Your task to perform on an android device: Open location settings Image 0: 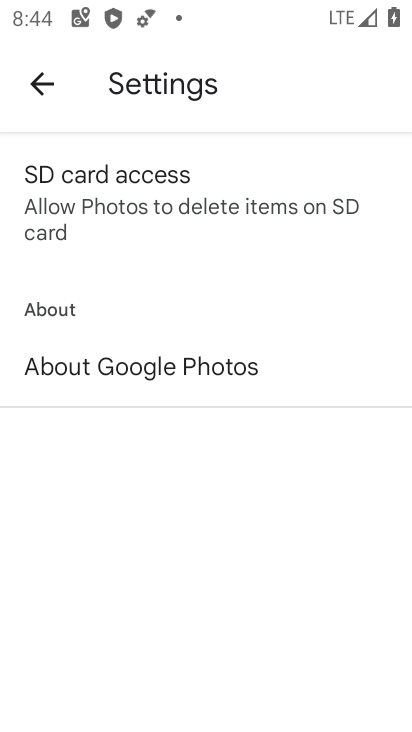
Step 0: press home button
Your task to perform on an android device: Open location settings Image 1: 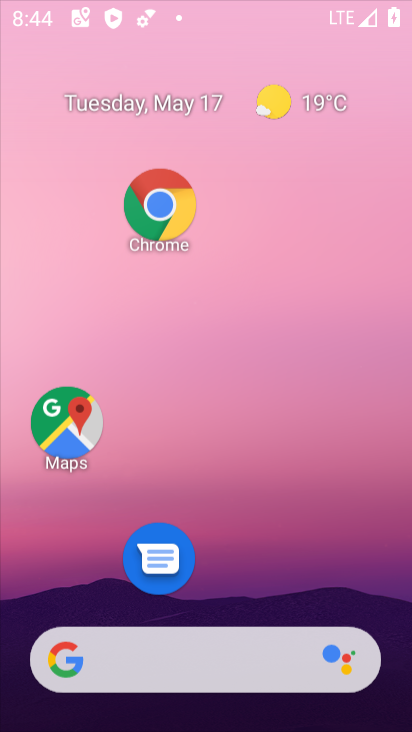
Step 1: drag from (169, 650) to (64, 2)
Your task to perform on an android device: Open location settings Image 2: 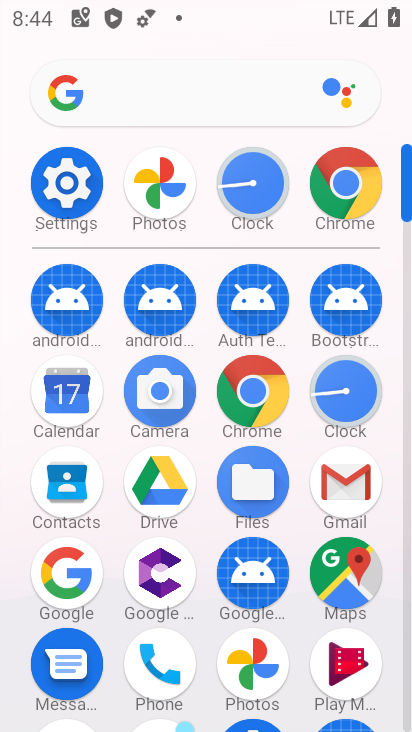
Step 2: click (55, 199)
Your task to perform on an android device: Open location settings Image 3: 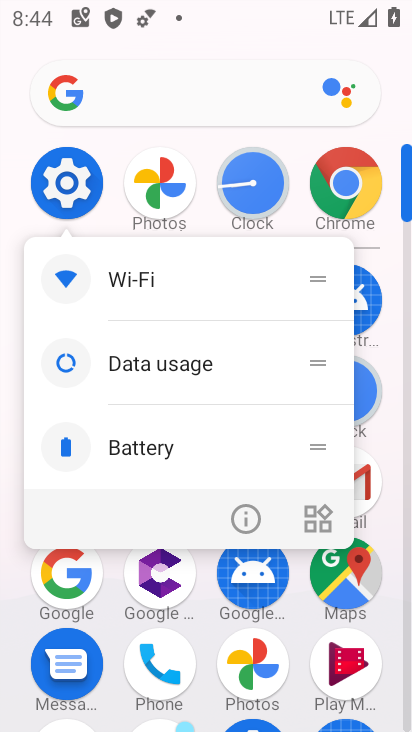
Step 3: click (255, 518)
Your task to perform on an android device: Open location settings Image 4: 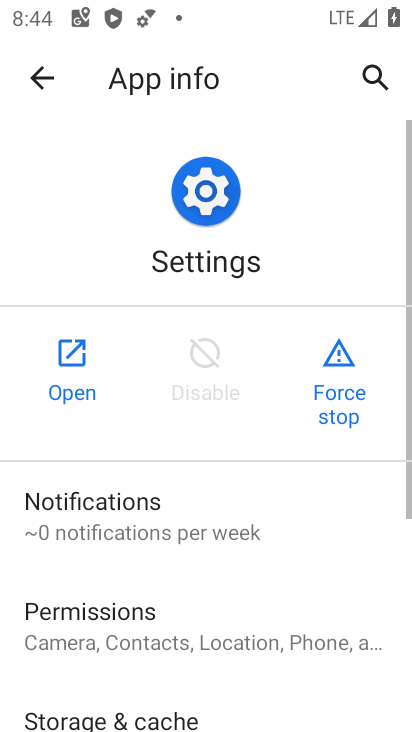
Step 4: click (71, 380)
Your task to perform on an android device: Open location settings Image 5: 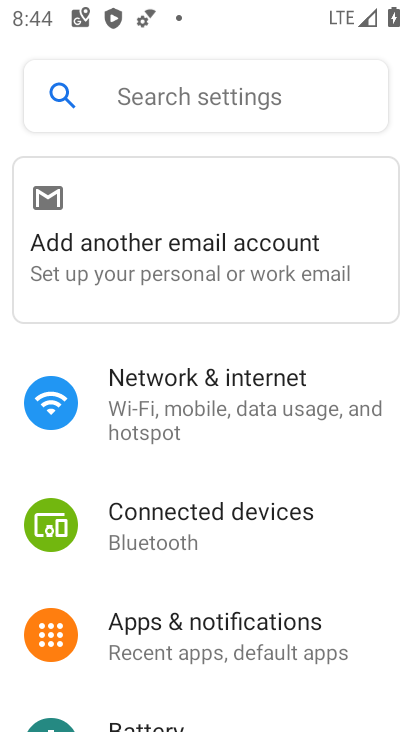
Step 5: drag from (233, 631) to (206, 11)
Your task to perform on an android device: Open location settings Image 6: 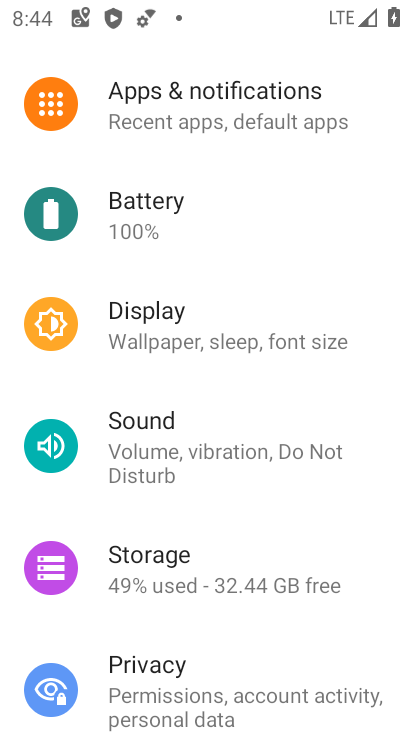
Step 6: drag from (197, 446) to (244, 89)
Your task to perform on an android device: Open location settings Image 7: 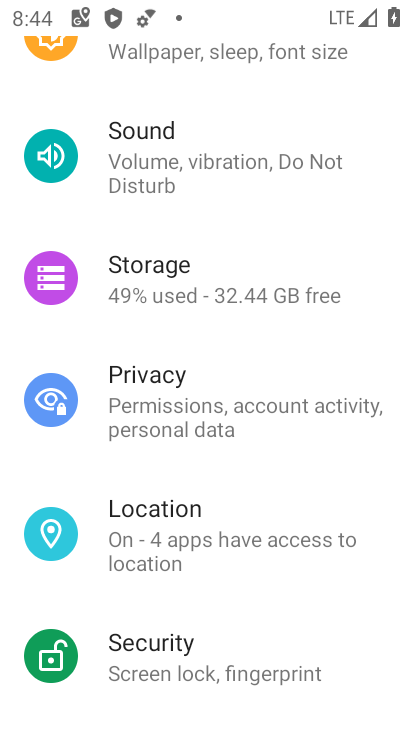
Step 7: click (173, 543)
Your task to perform on an android device: Open location settings Image 8: 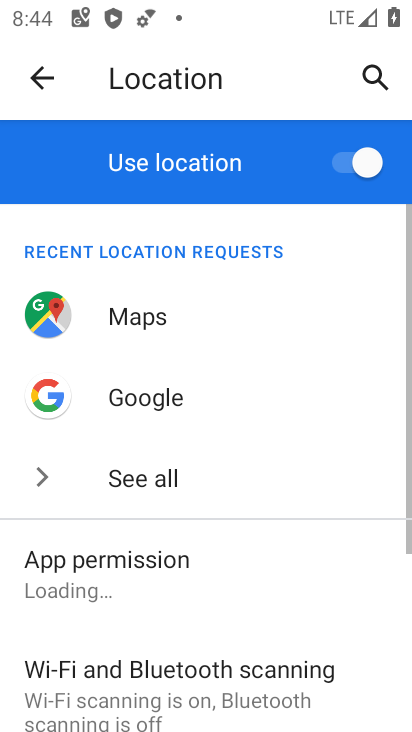
Step 8: drag from (174, 654) to (177, 282)
Your task to perform on an android device: Open location settings Image 9: 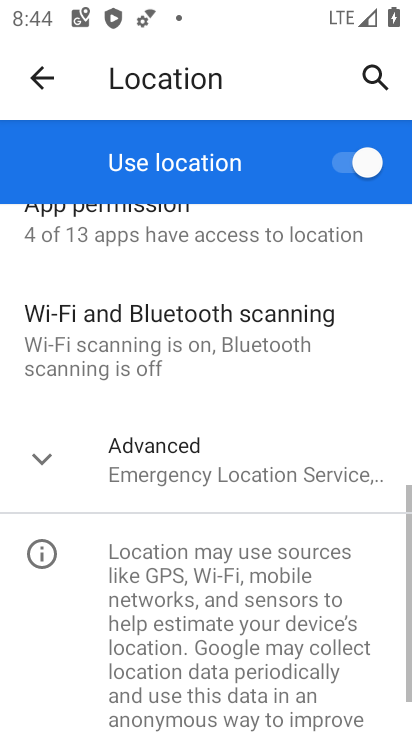
Step 9: click (112, 463)
Your task to perform on an android device: Open location settings Image 10: 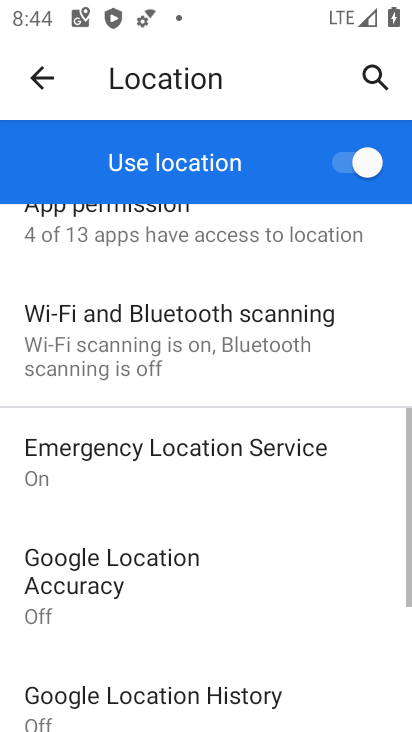
Step 10: task complete